Your task to perform on an android device: Open notification settings Image 0: 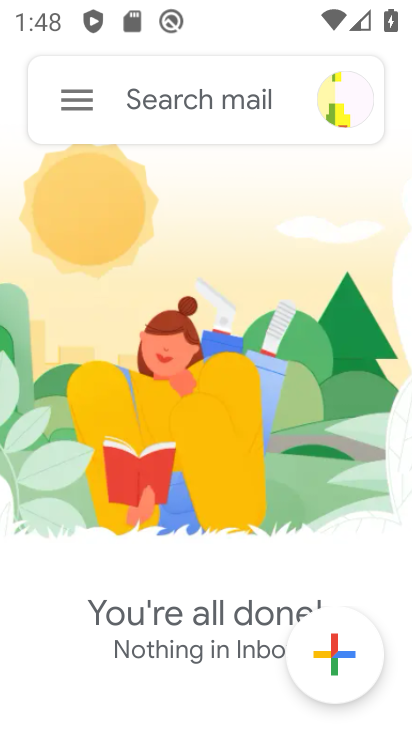
Step 0: press home button
Your task to perform on an android device: Open notification settings Image 1: 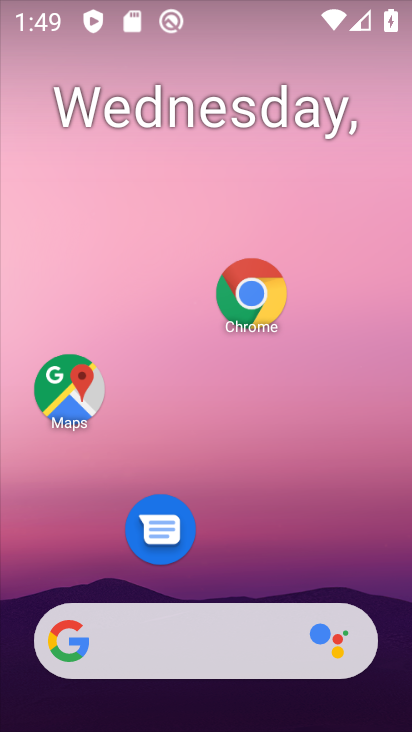
Step 1: drag from (311, 634) to (372, 48)
Your task to perform on an android device: Open notification settings Image 2: 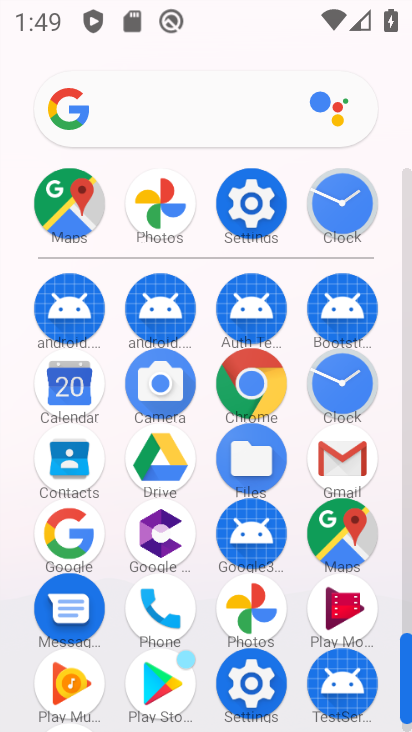
Step 2: click (260, 206)
Your task to perform on an android device: Open notification settings Image 3: 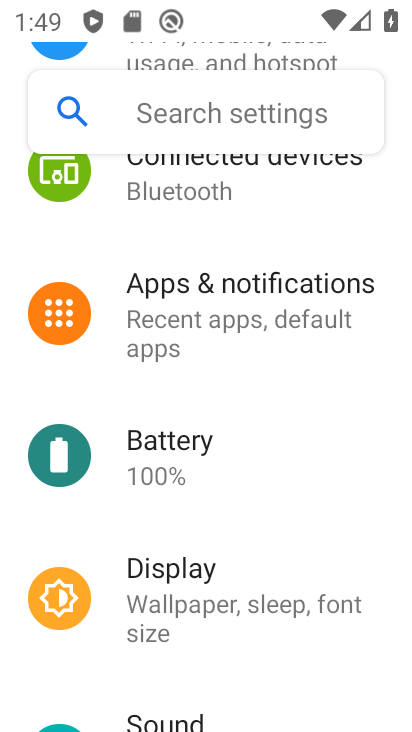
Step 3: click (251, 308)
Your task to perform on an android device: Open notification settings Image 4: 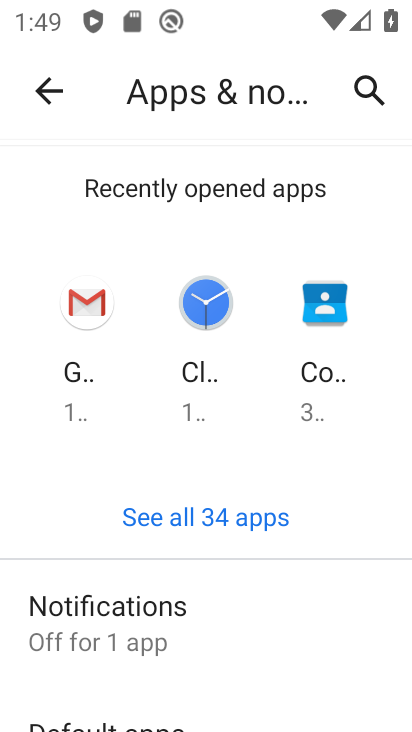
Step 4: click (184, 606)
Your task to perform on an android device: Open notification settings Image 5: 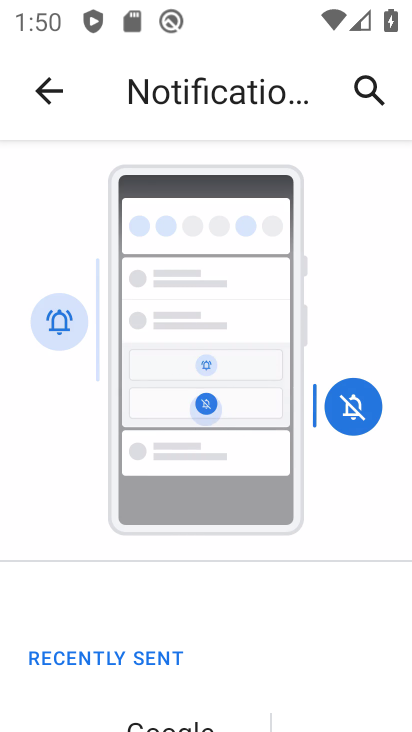
Step 5: task complete